Your task to perform on an android device: turn on location history Image 0: 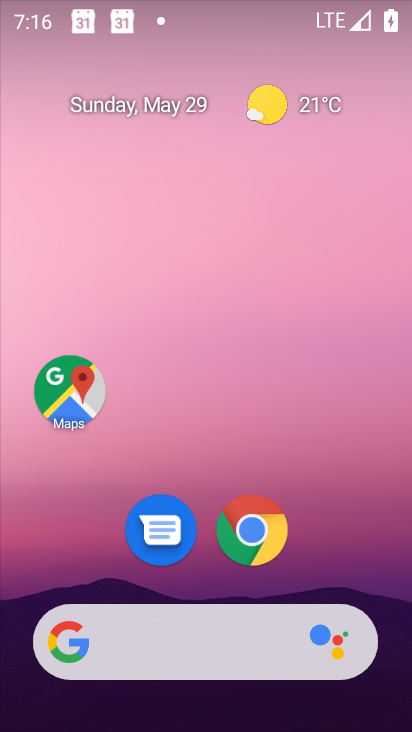
Step 0: drag from (277, 681) to (243, 120)
Your task to perform on an android device: turn on location history Image 1: 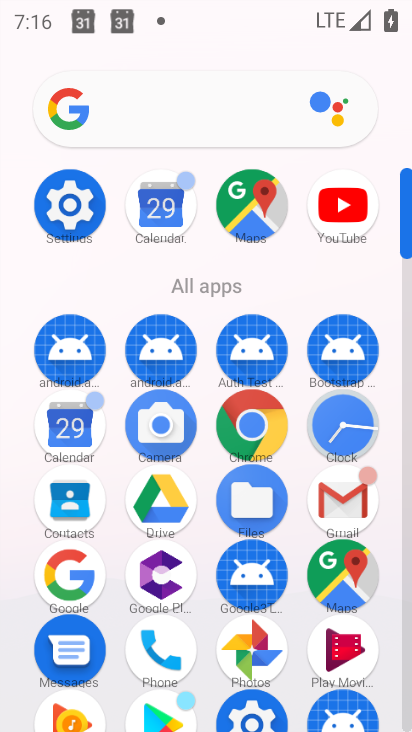
Step 1: click (75, 188)
Your task to perform on an android device: turn on location history Image 2: 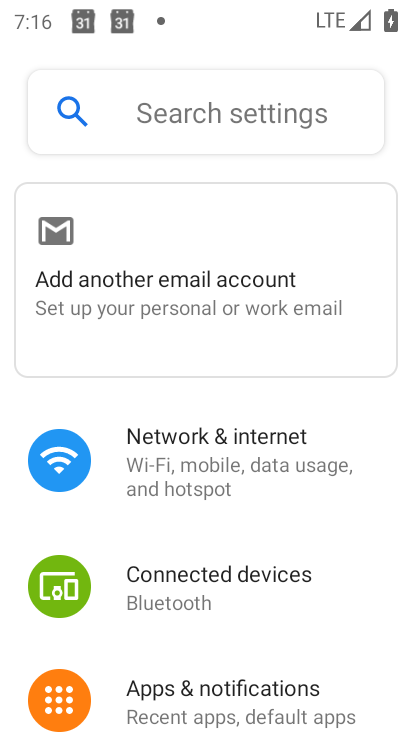
Step 2: click (190, 131)
Your task to perform on an android device: turn on location history Image 3: 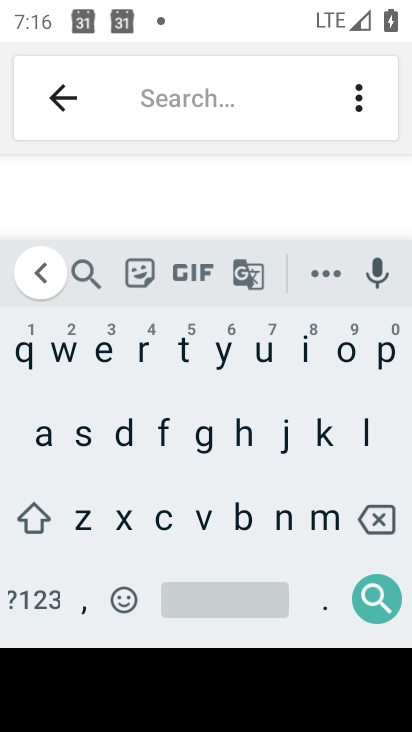
Step 3: click (360, 444)
Your task to perform on an android device: turn on location history Image 4: 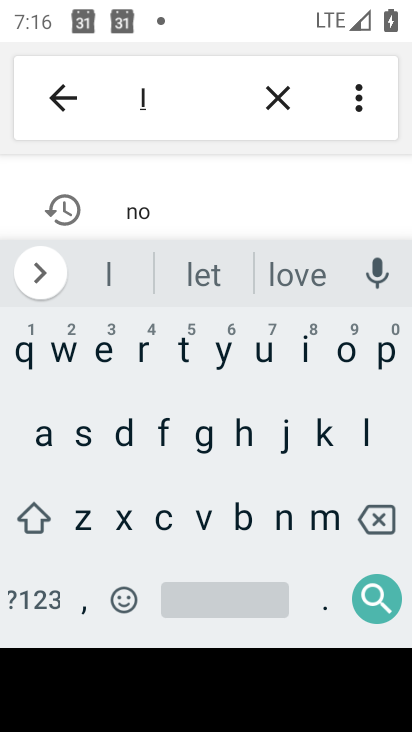
Step 4: click (336, 350)
Your task to perform on an android device: turn on location history Image 5: 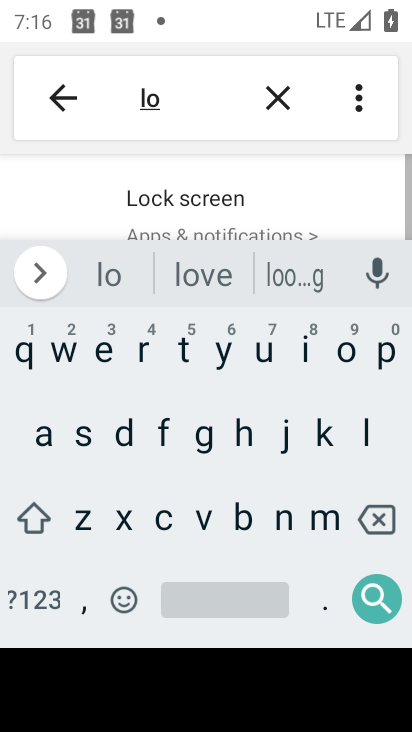
Step 5: click (147, 104)
Your task to perform on an android device: turn on location history Image 6: 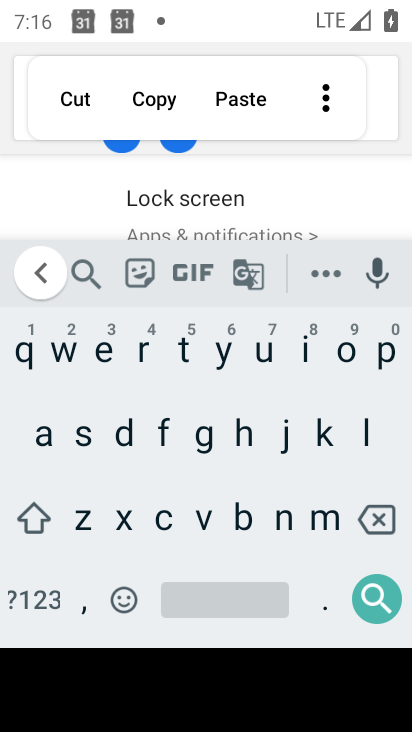
Step 6: press back button
Your task to perform on an android device: turn on location history Image 7: 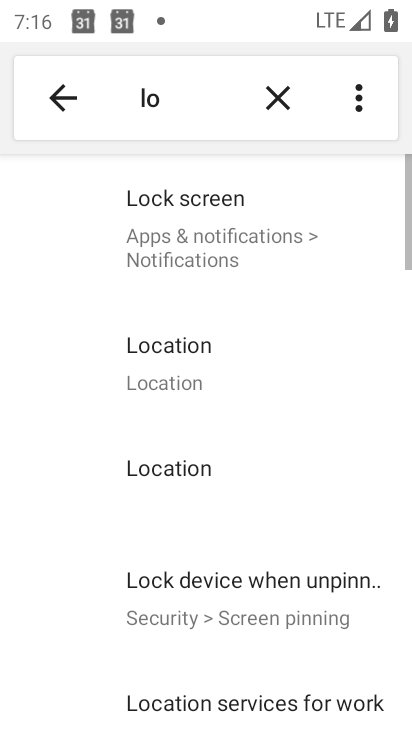
Step 7: click (196, 386)
Your task to perform on an android device: turn on location history Image 8: 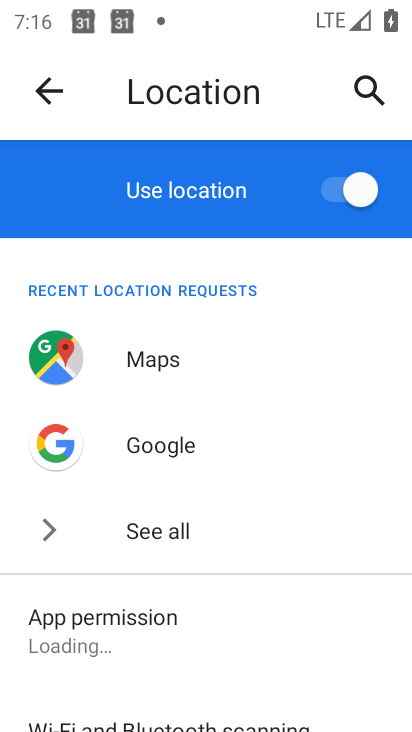
Step 8: click (353, 176)
Your task to perform on an android device: turn on location history Image 9: 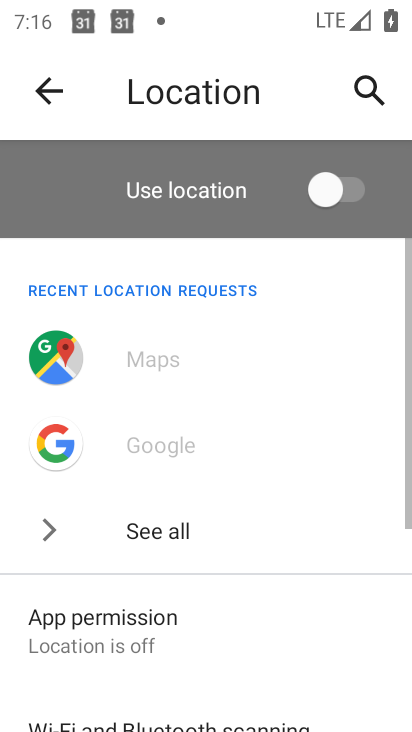
Step 9: click (344, 185)
Your task to perform on an android device: turn on location history Image 10: 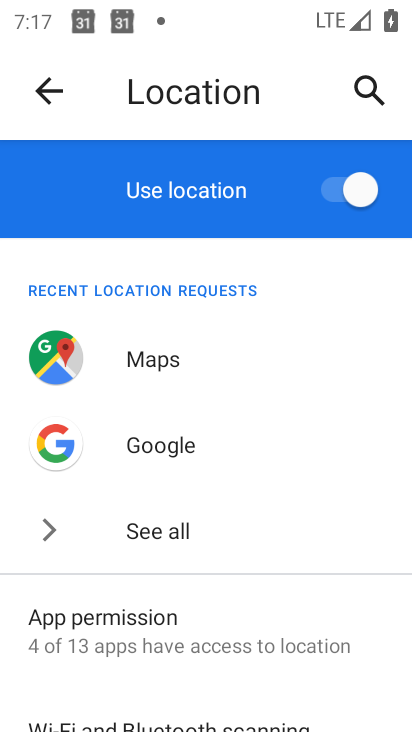
Step 10: task complete